Your task to perform on an android device: install app "TextNow: Call + Text Unlimited" Image 0: 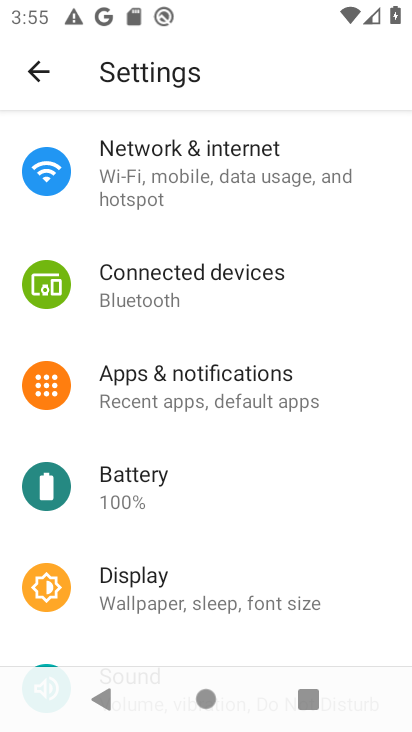
Step 0: press home button
Your task to perform on an android device: install app "TextNow: Call + Text Unlimited" Image 1: 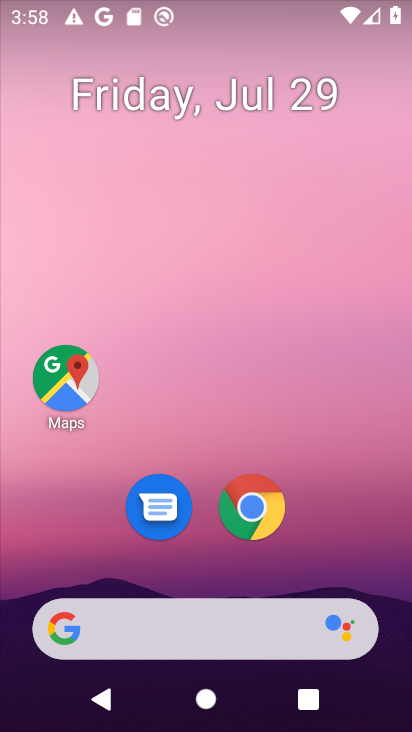
Step 1: task complete